Your task to perform on an android device: Go to Wikipedia Image 0: 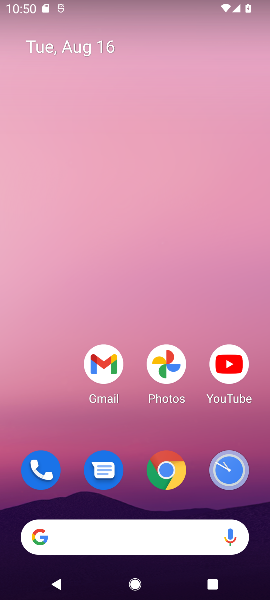
Step 0: click (35, 382)
Your task to perform on an android device: Go to Wikipedia Image 1: 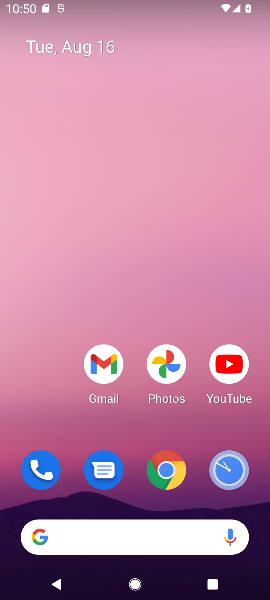
Step 1: click (167, 467)
Your task to perform on an android device: Go to Wikipedia Image 2: 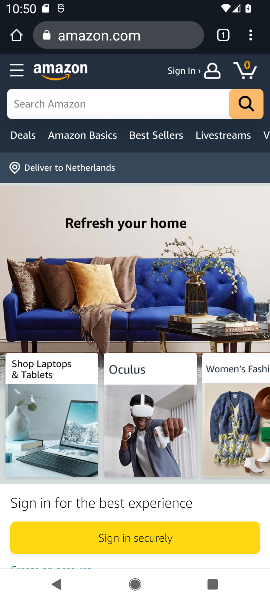
Step 2: press back button
Your task to perform on an android device: Go to Wikipedia Image 3: 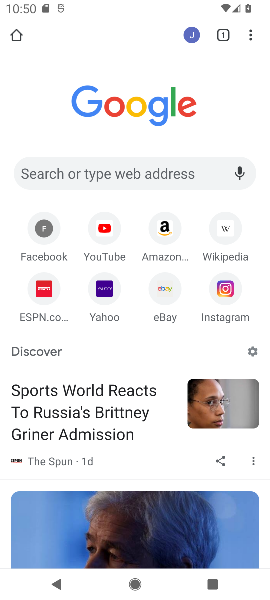
Step 3: click (227, 229)
Your task to perform on an android device: Go to Wikipedia Image 4: 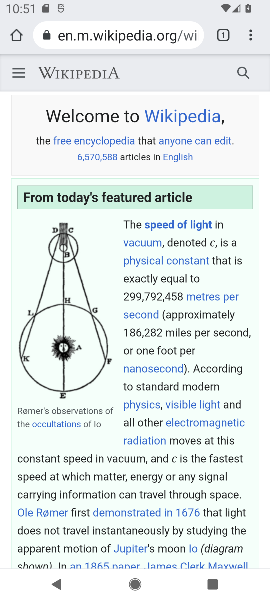
Step 4: task complete